Your task to perform on an android device: turn off airplane mode Image 0: 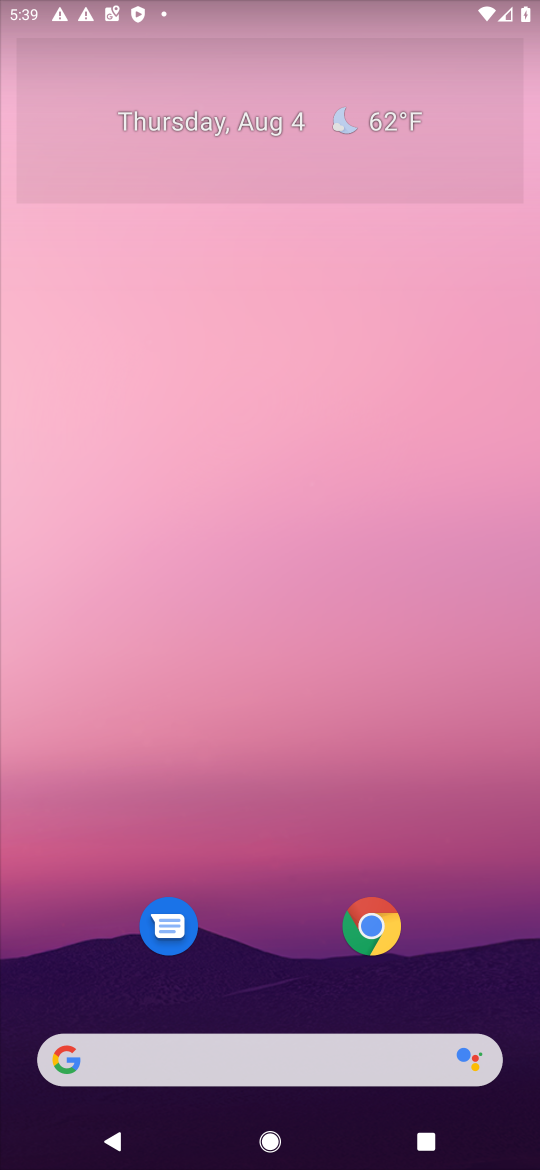
Step 0: drag from (313, 1) to (144, 815)
Your task to perform on an android device: turn off airplane mode Image 1: 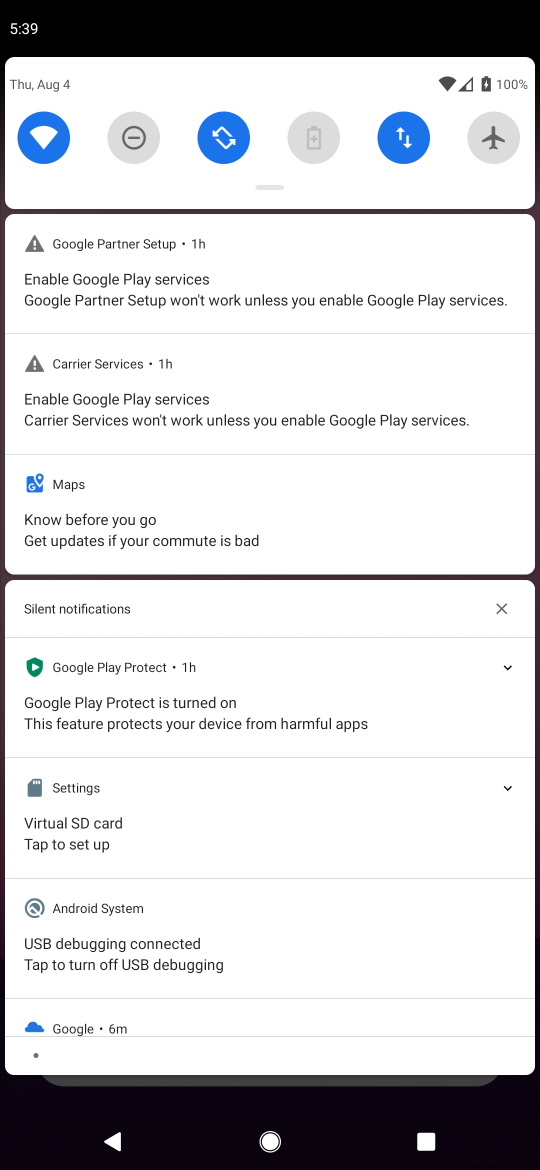
Step 1: task complete